Your task to perform on an android device: Do I have any events today? Image 0: 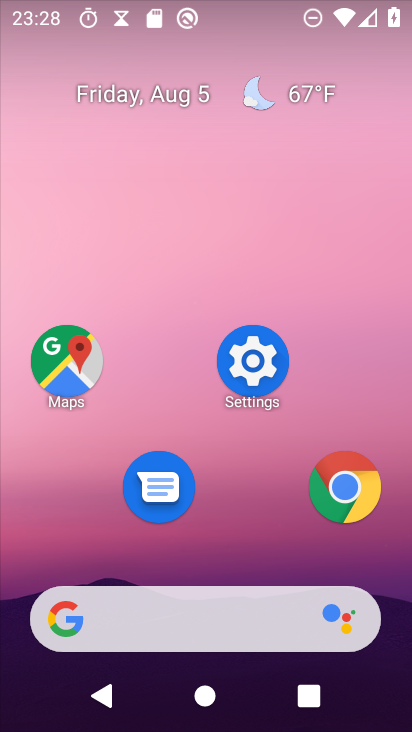
Step 0: drag from (208, 618) to (320, 44)
Your task to perform on an android device: Do I have any events today? Image 1: 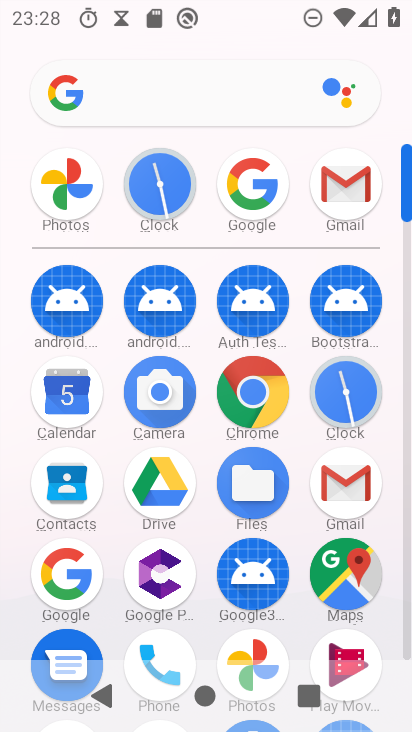
Step 1: click (74, 405)
Your task to perform on an android device: Do I have any events today? Image 2: 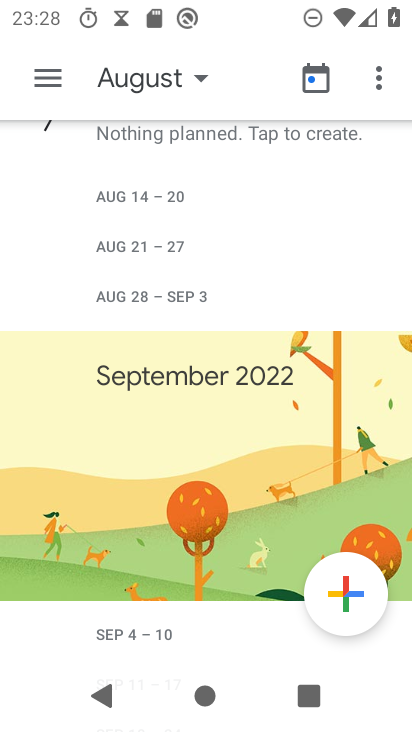
Step 2: drag from (234, 225) to (219, 504)
Your task to perform on an android device: Do I have any events today? Image 3: 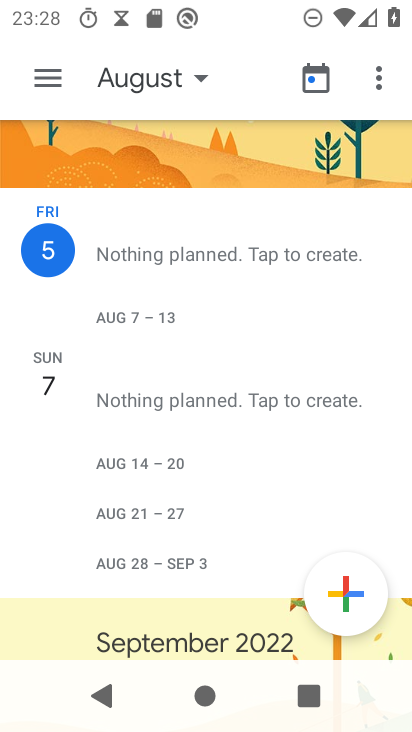
Step 3: click (145, 89)
Your task to perform on an android device: Do I have any events today? Image 4: 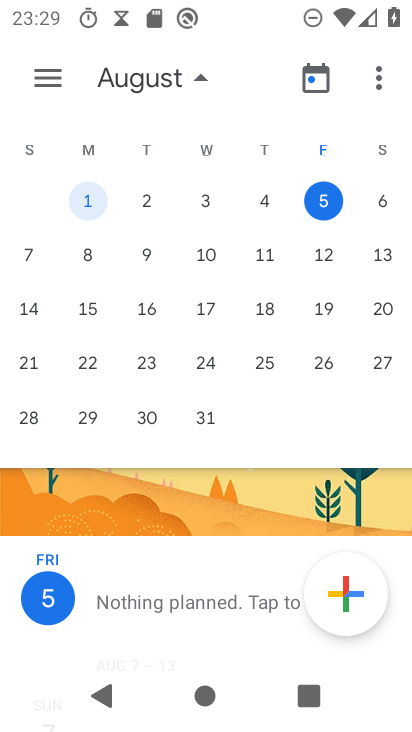
Step 4: click (317, 199)
Your task to perform on an android device: Do I have any events today? Image 5: 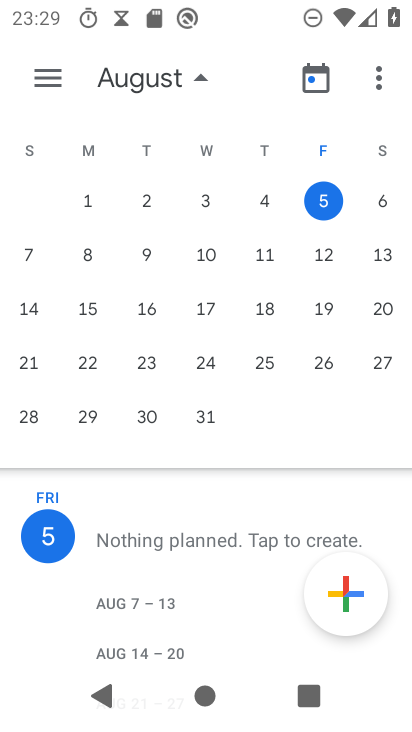
Step 5: click (48, 79)
Your task to perform on an android device: Do I have any events today? Image 6: 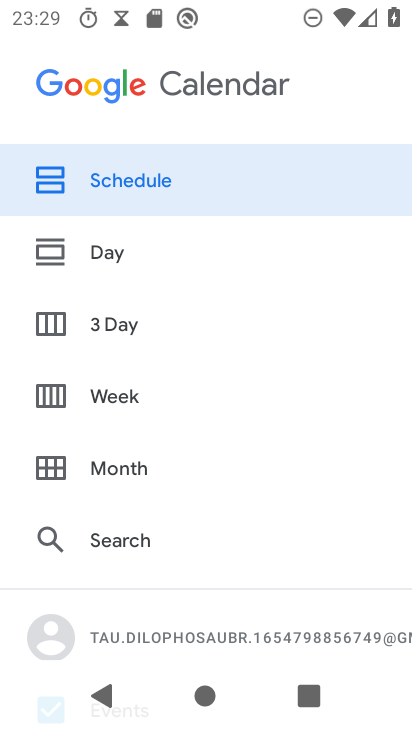
Step 6: click (108, 247)
Your task to perform on an android device: Do I have any events today? Image 7: 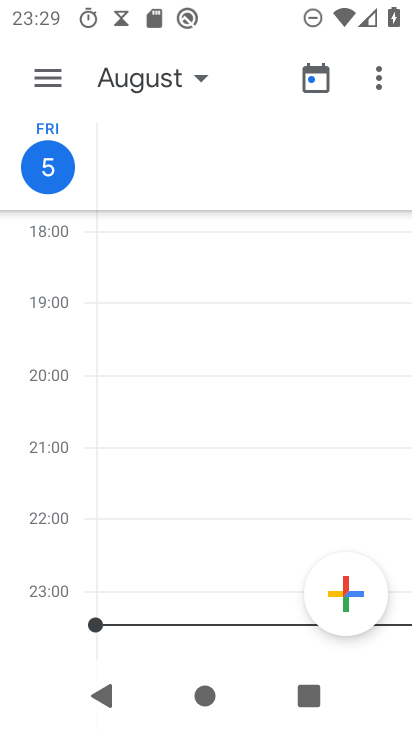
Step 7: click (51, 77)
Your task to perform on an android device: Do I have any events today? Image 8: 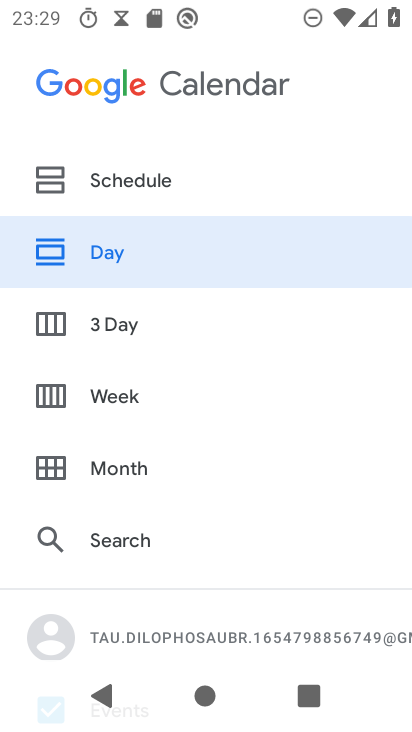
Step 8: click (135, 180)
Your task to perform on an android device: Do I have any events today? Image 9: 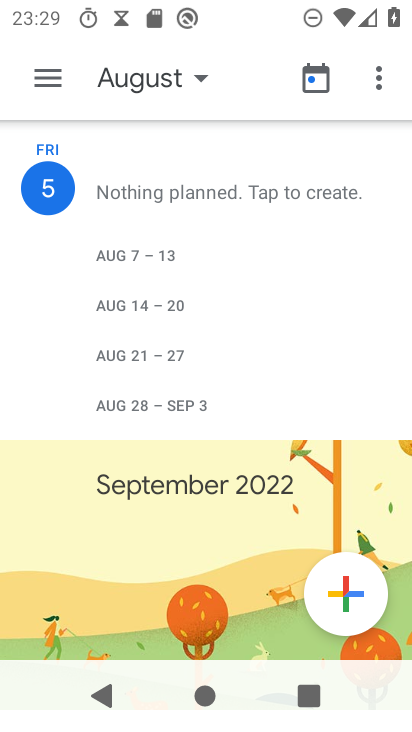
Step 9: task complete